Your task to perform on an android device: Is it going to rain tomorrow? Image 0: 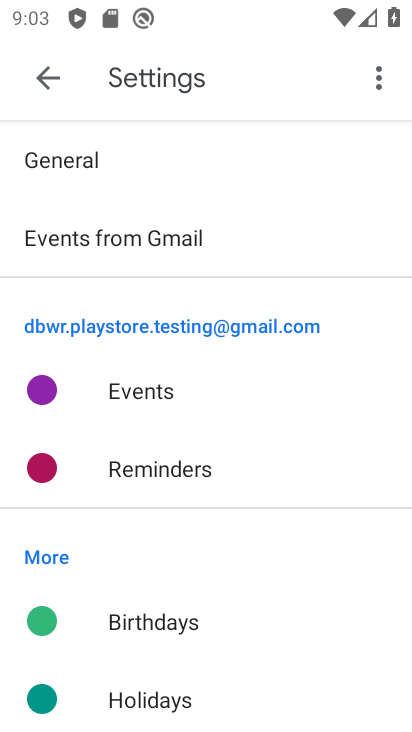
Step 0: press home button
Your task to perform on an android device: Is it going to rain tomorrow? Image 1: 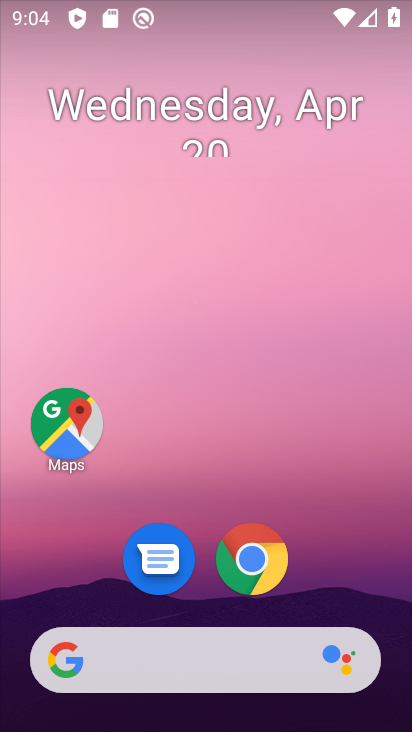
Step 1: drag from (206, 550) to (206, 132)
Your task to perform on an android device: Is it going to rain tomorrow? Image 2: 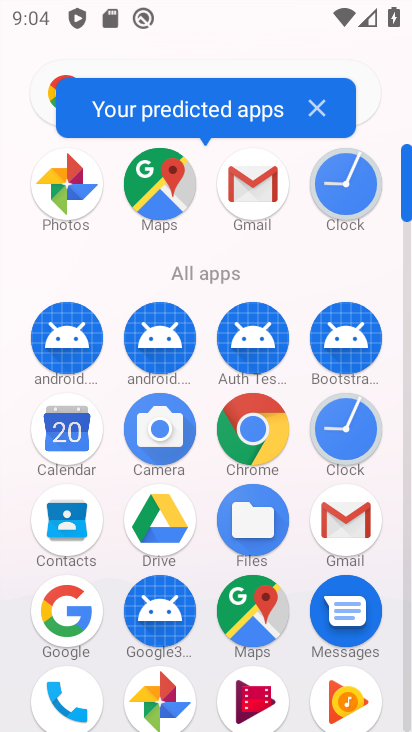
Step 2: click (66, 633)
Your task to perform on an android device: Is it going to rain tomorrow? Image 3: 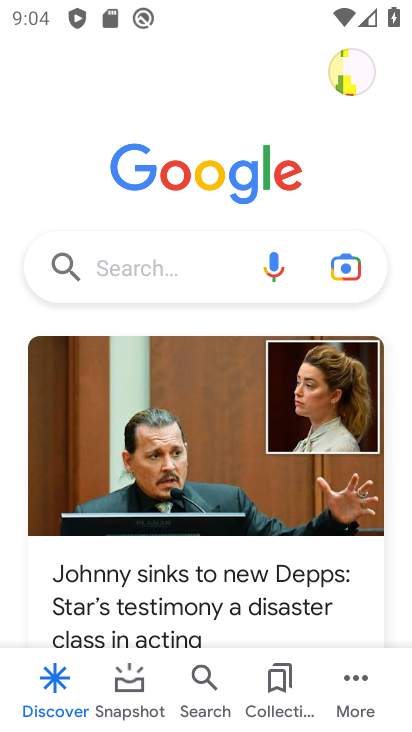
Step 3: click (166, 260)
Your task to perform on an android device: Is it going to rain tomorrow? Image 4: 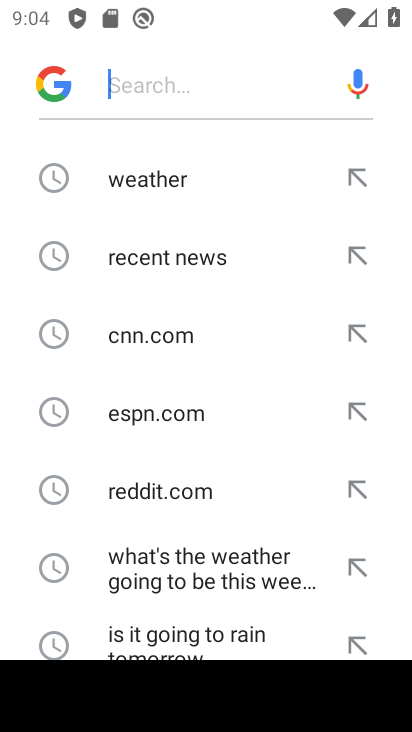
Step 4: click (130, 179)
Your task to perform on an android device: Is it going to rain tomorrow? Image 5: 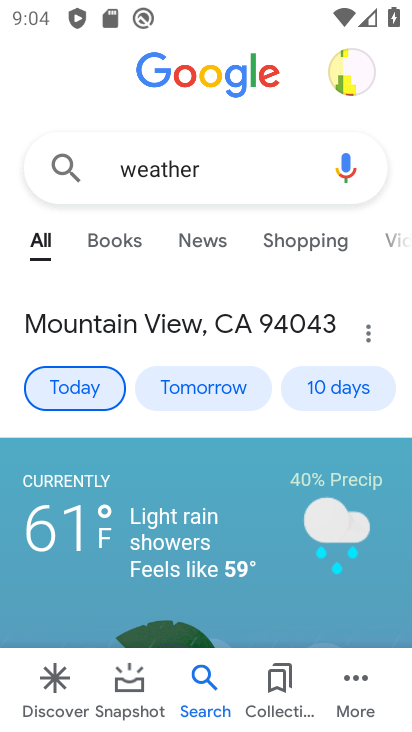
Step 5: click (199, 399)
Your task to perform on an android device: Is it going to rain tomorrow? Image 6: 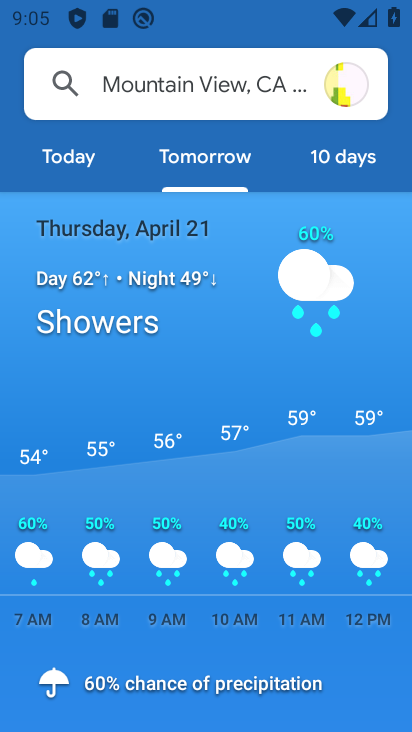
Step 6: task complete